Your task to perform on an android device: open a bookmark in the chrome app Image 0: 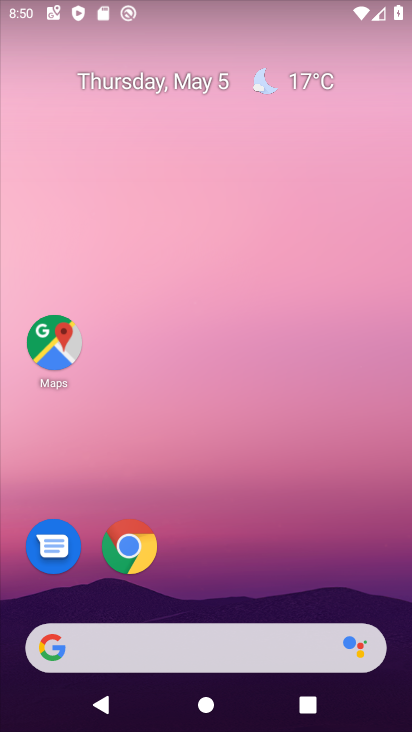
Step 0: drag from (196, 640) to (279, 190)
Your task to perform on an android device: open a bookmark in the chrome app Image 1: 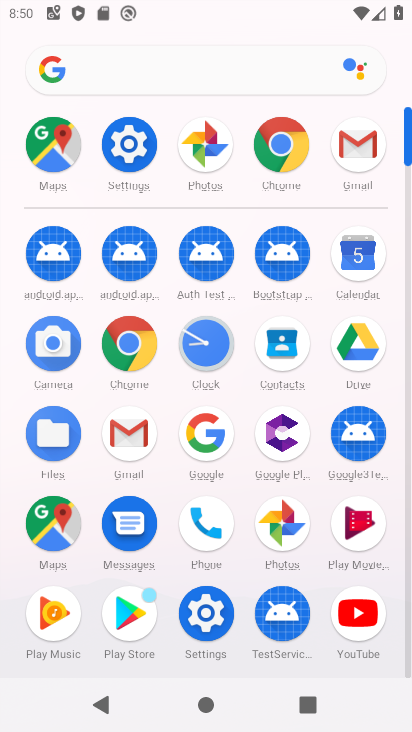
Step 1: click (281, 152)
Your task to perform on an android device: open a bookmark in the chrome app Image 2: 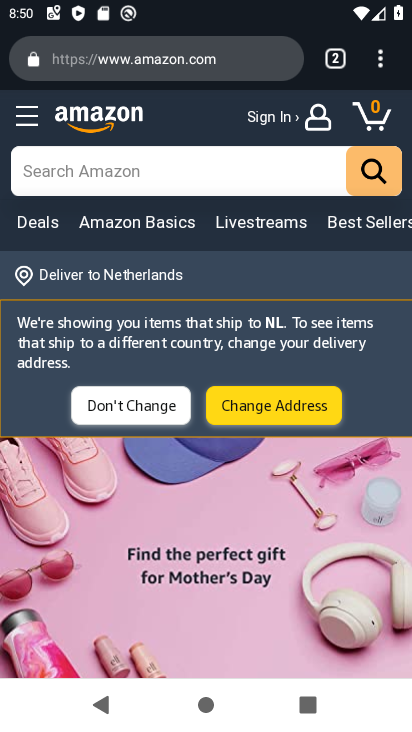
Step 2: drag from (381, 64) to (195, 224)
Your task to perform on an android device: open a bookmark in the chrome app Image 3: 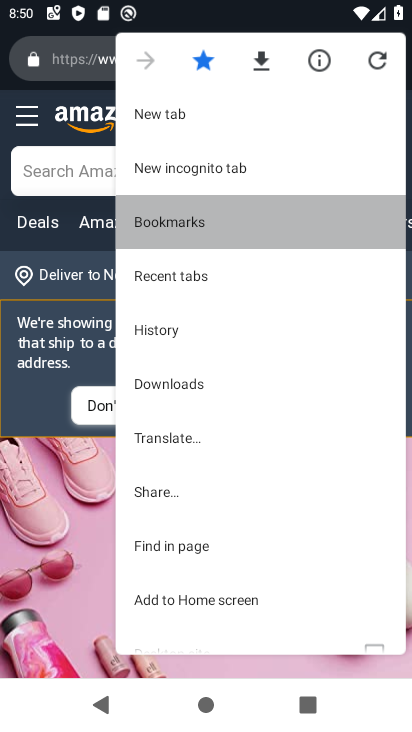
Step 3: click (195, 224)
Your task to perform on an android device: open a bookmark in the chrome app Image 4: 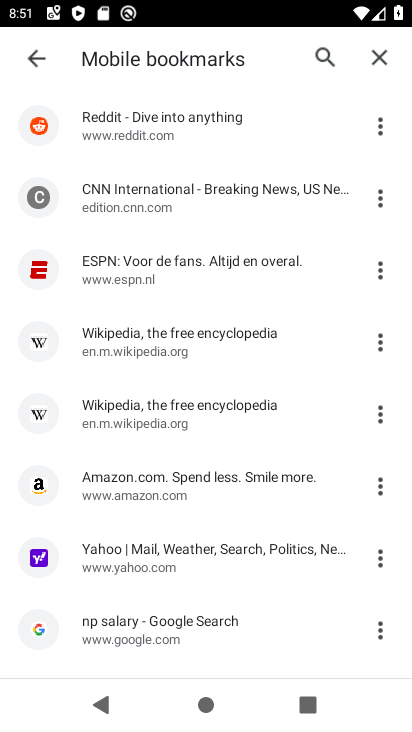
Step 4: task complete